Your task to perform on an android device: Go to notification settings Image 0: 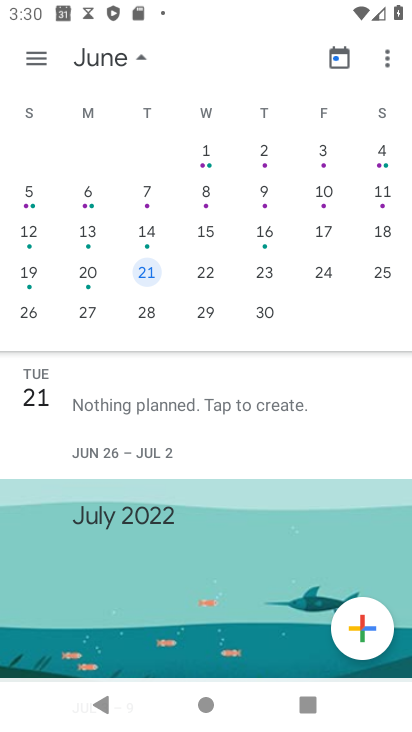
Step 0: press home button
Your task to perform on an android device: Go to notification settings Image 1: 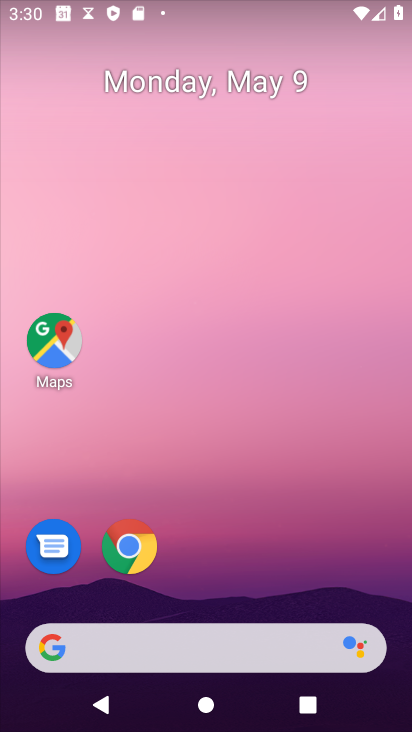
Step 1: drag from (346, 457) to (317, 169)
Your task to perform on an android device: Go to notification settings Image 2: 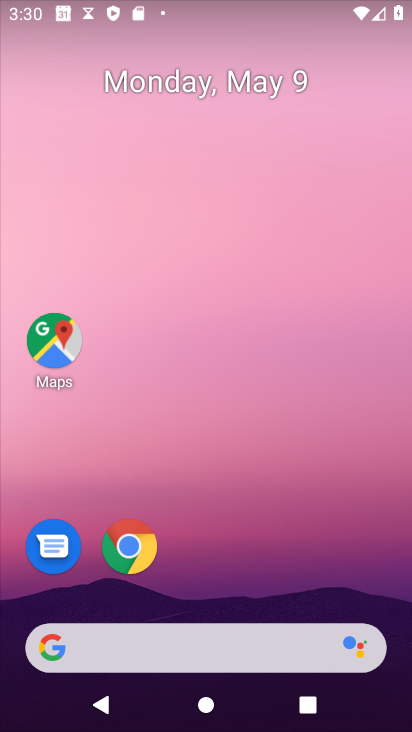
Step 2: drag from (269, 500) to (236, 100)
Your task to perform on an android device: Go to notification settings Image 3: 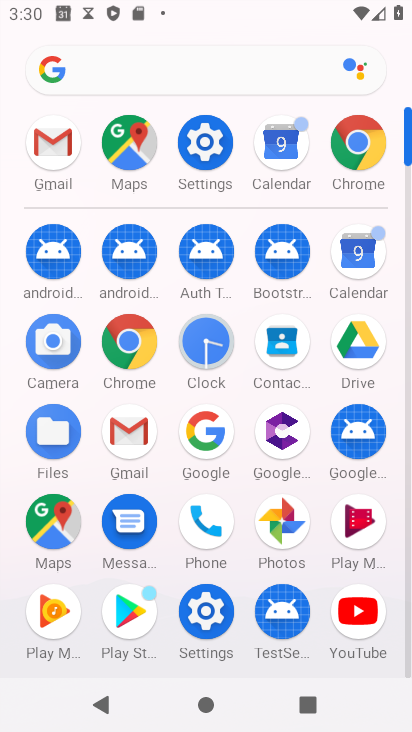
Step 3: click (208, 141)
Your task to perform on an android device: Go to notification settings Image 4: 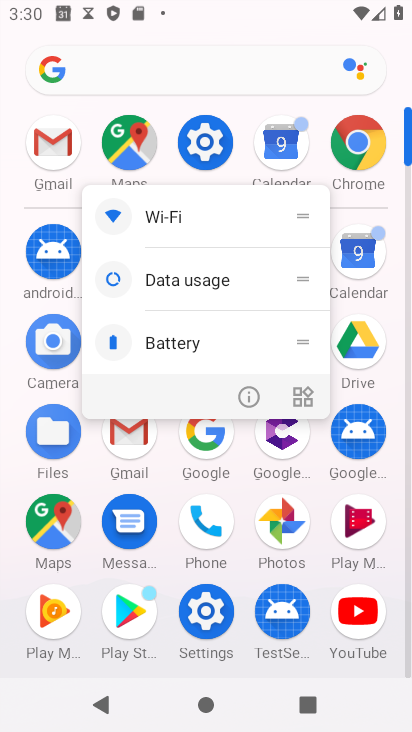
Step 4: click (208, 141)
Your task to perform on an android device: Go to notification settings Image 5: 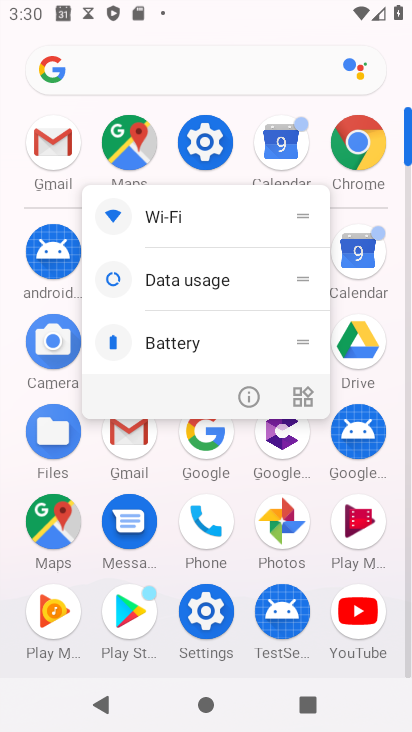
Step 5: click (223, 163)
Your task to perform on an android device: Go to notification settings Image 6: 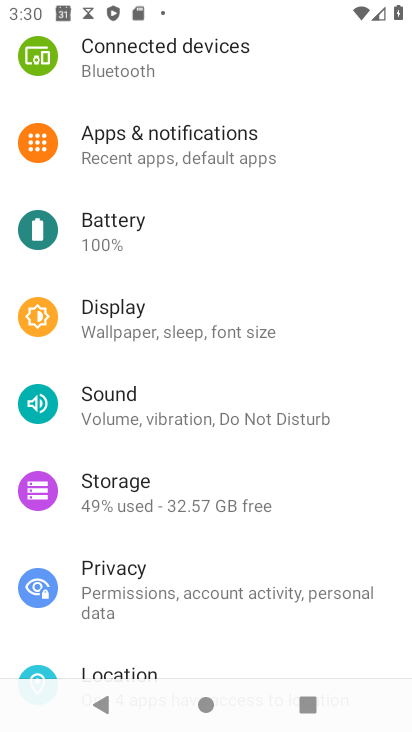
Step 6: click (222, 163)
Your task to perform on an android device: Go to notification settings Image 7: 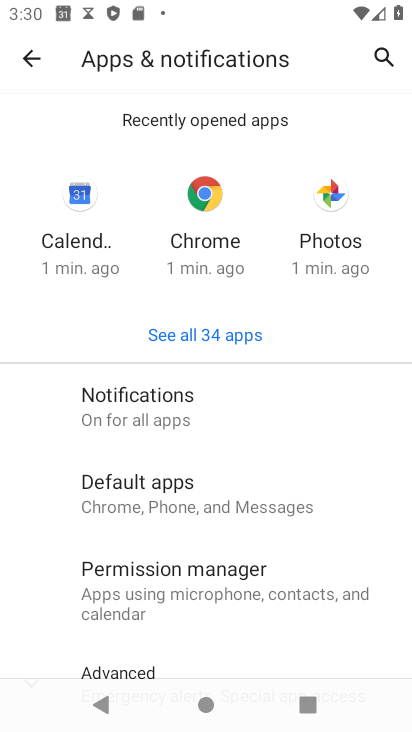
Step 7: click (148, 435)
Your task to perform on an android device: Go to notification settings Image 8: 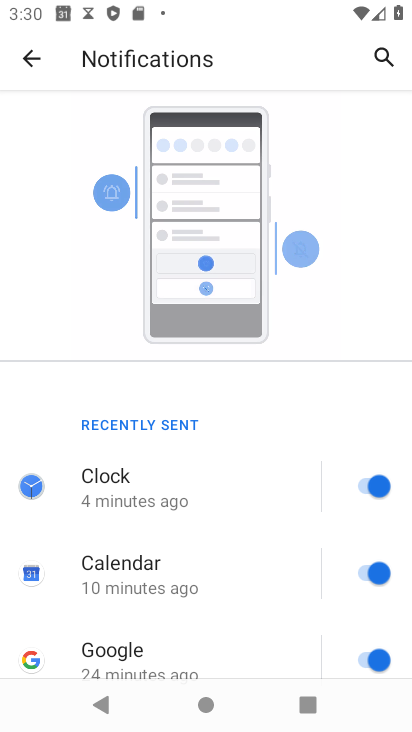
Step 8: task complete